Your task to perform on an android device: find snoozed emails in the gmail app Image 0: 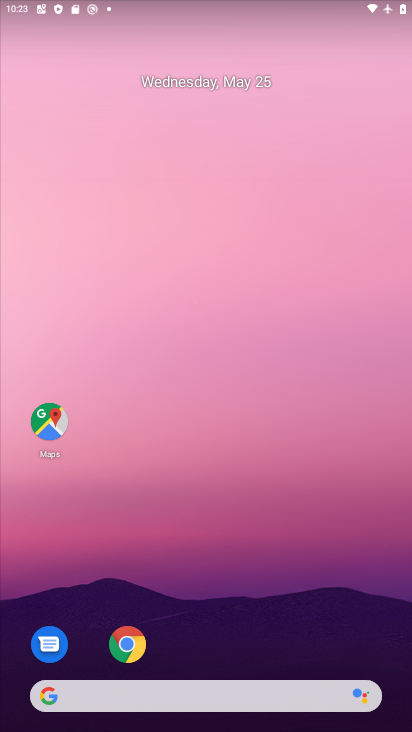
Step 0: drag from (225, 622) to (213, 136)
Your task to perform on an android device: find snoozed emails in the gmail app Image 1: 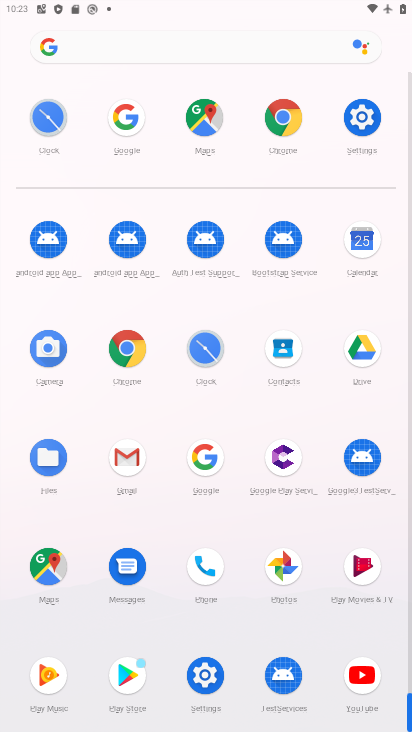
Step 1: click (128, 459)
Your task to perform on an android device: find snoozed emails in the gmail app Image 2: 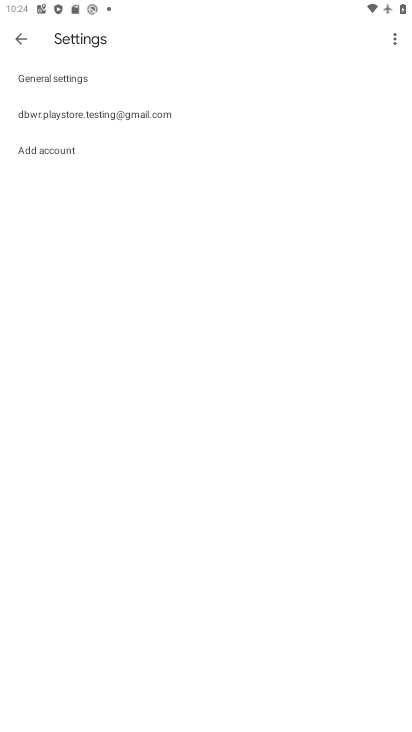
Step 2: press back button
Your task to perform on an android device: find snoozed emails in the gmail app Image 3: 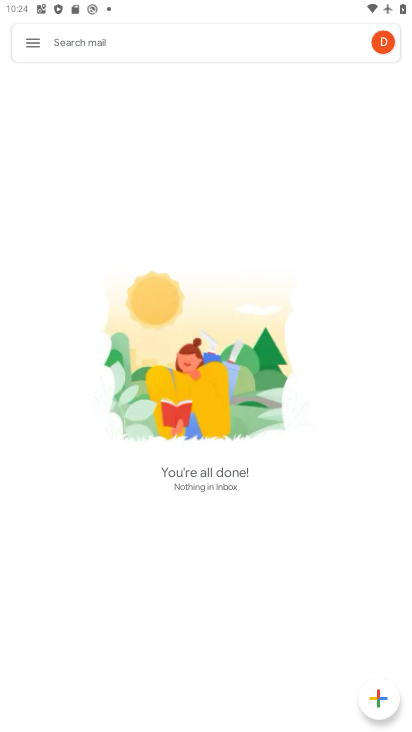
Step 3: click (38, 40)
Your task to perform on an android device: find snoozed emails in the gmail app Image 4: 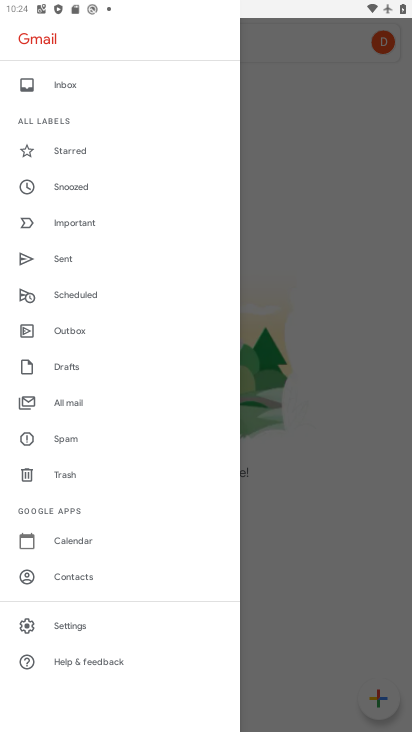
Step 4: click (72, 184)
Your task to perform on an android device: find snoozed emails in the gmail app Image 5: 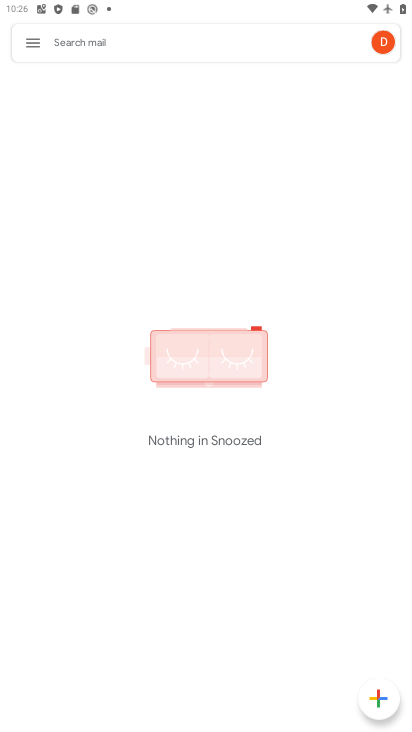
Step 5: task complete